Your task to perform on an android device: uninstall "Google Photos" Image 0: 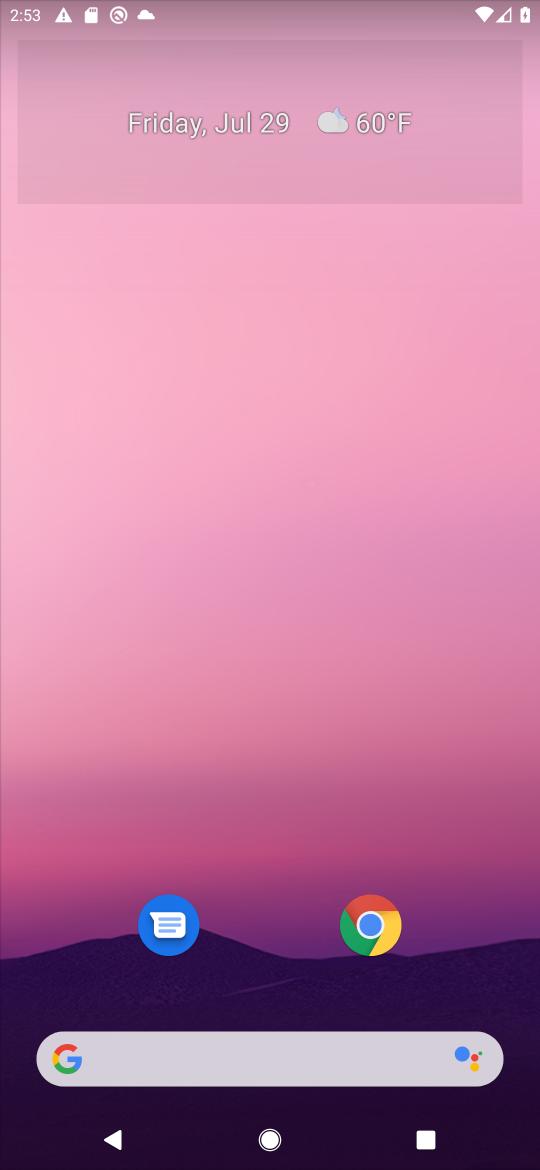
Step 0: drag from (311, 475) to (313, 71)
Your task to perform on an android device: uninstall "Google Photos" Image 1: 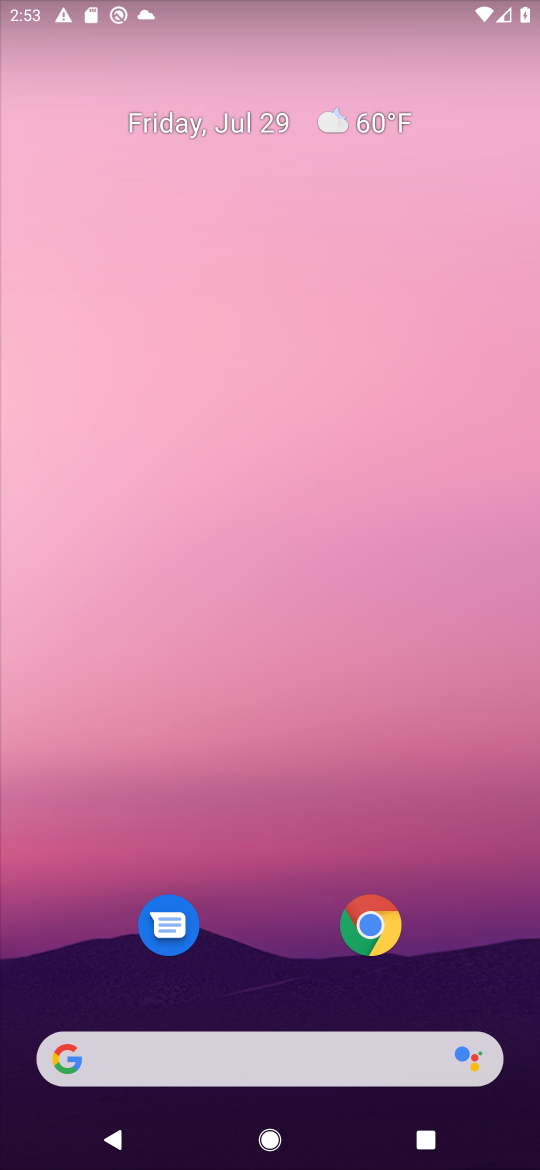
Step 1: drag from (280, 984) to (240, 25)
Your task to perform on an android device: uninstall "Google Photos" Image 2: 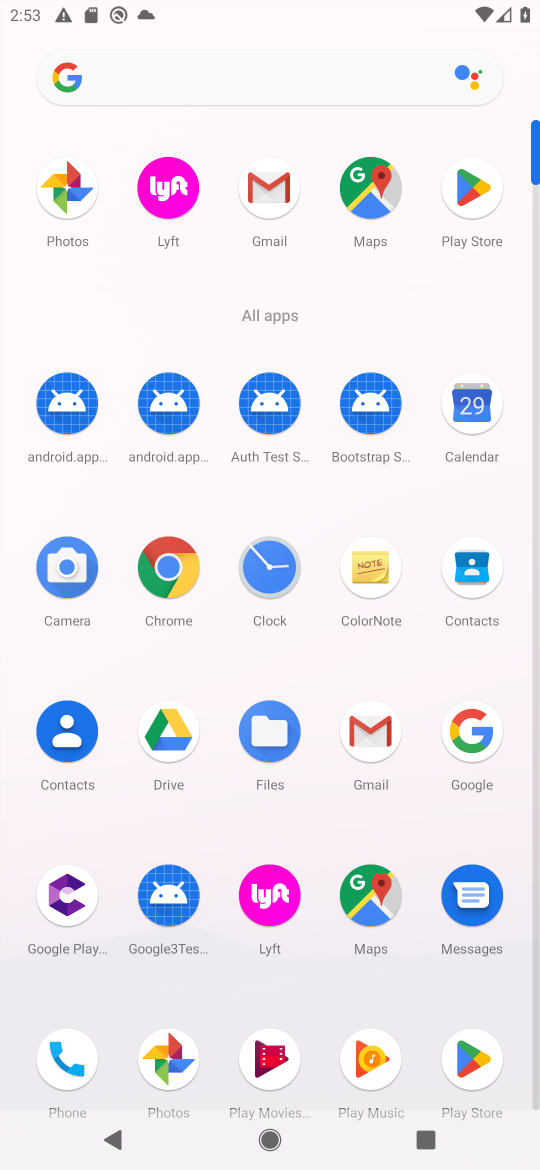
Step 2: drag from (204, 1001) to (207, 861)
Your task to perform on an android device: uninstall "Google Photos" Image 3: 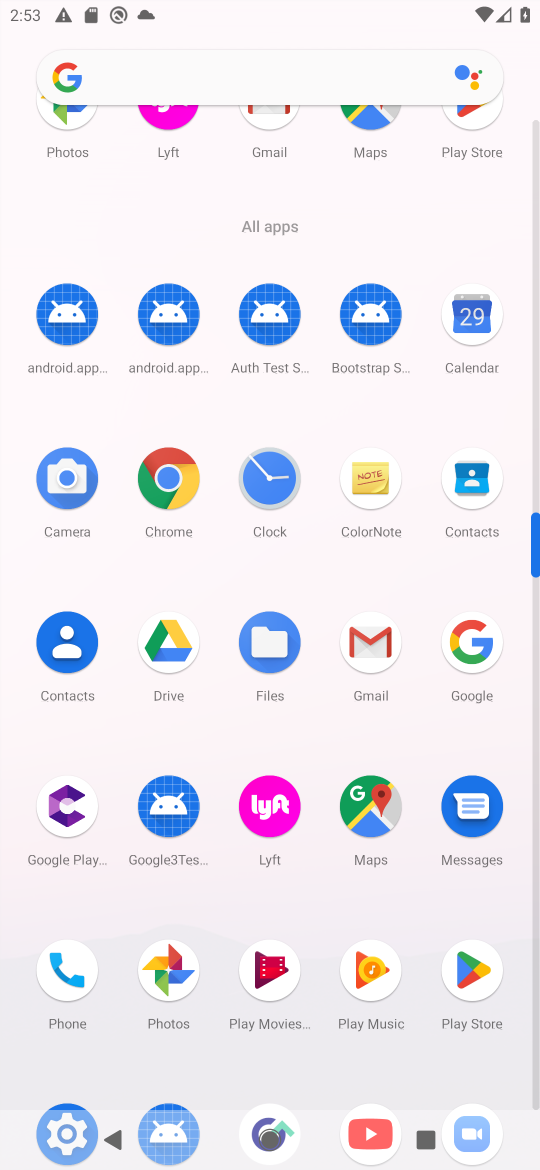
Step 3: click (169, 965)
Your task to perform on an android device: uninstall "Google Photos" Image 4: 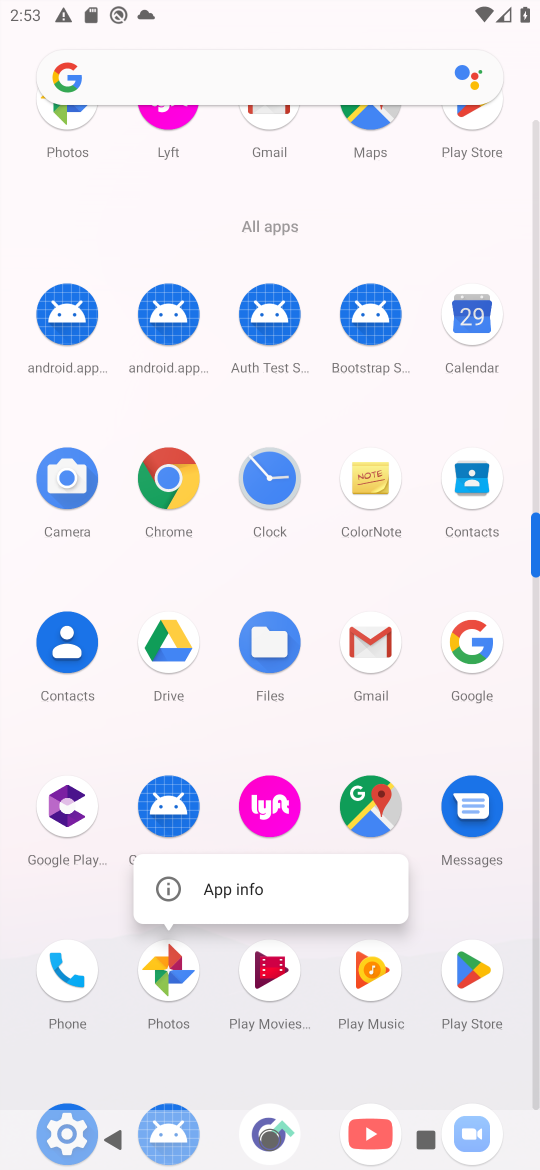
Step 4: click (199, 893)
Your task to perform on an android device: uninstall "Google Photos" Image 5: 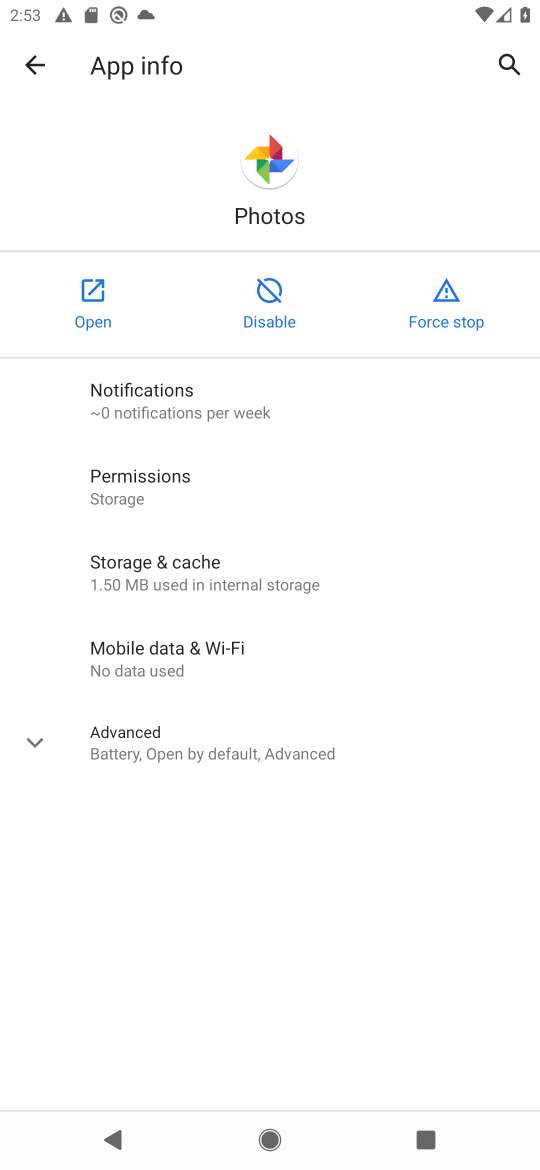
Step 5: task complete